Your task to perform on an android device: Show me the alarms in the clock app Image 0: 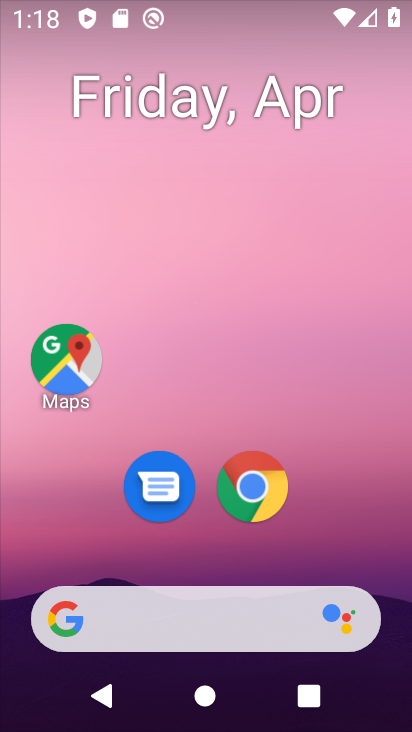
Step 0: drag from (209, 404) to (230, 41)
Your task to perform on an android device: Show me the alarms in the clock app Image 1: 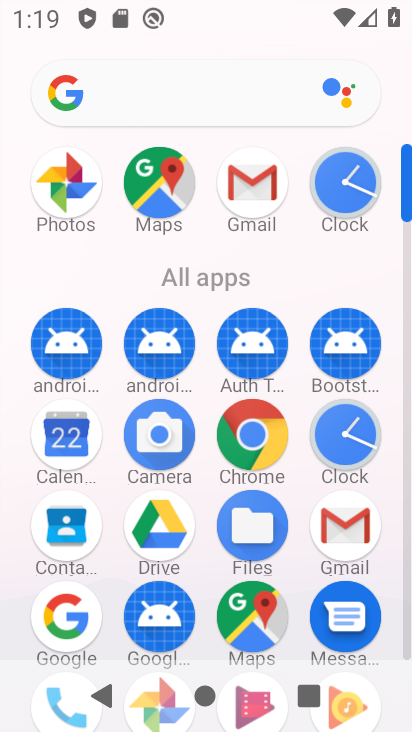
Step 1: click (357, 432)
Your task to perform on an android device: Show me the alarms in the clock app Image 2: 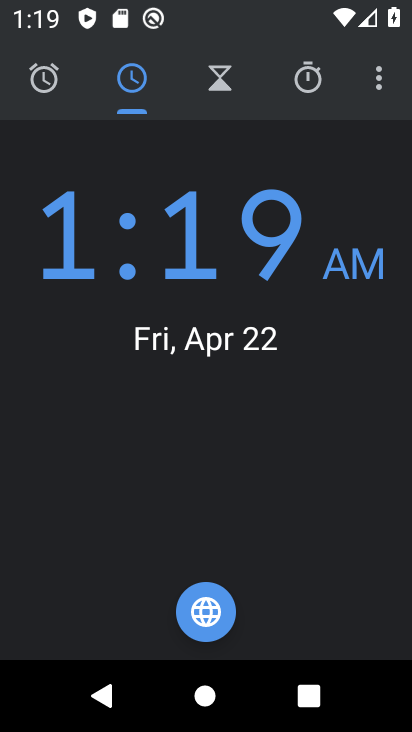
Step 2: click (64, 88)
Your task to perform on an android device: Show me the alarms in the clock app Image 3: 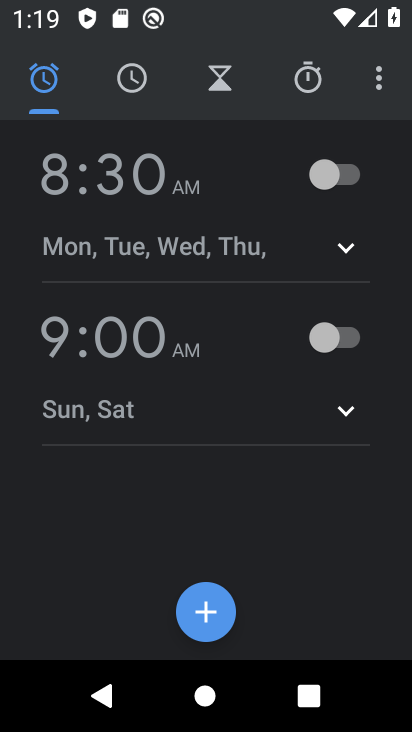
Step 3: task complete